Your task to perform on an android device: change timer sound Image 0: 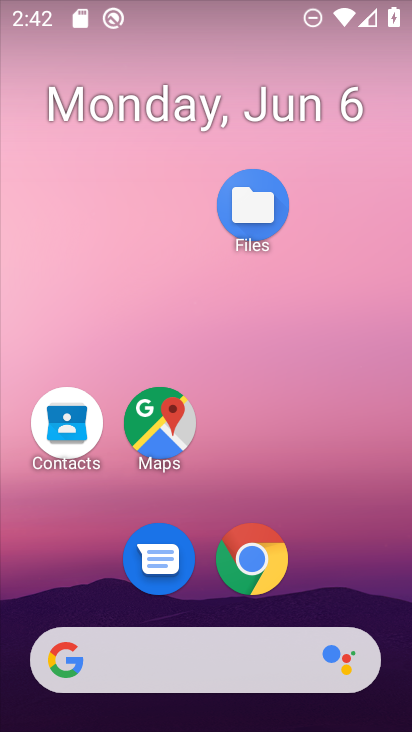
Step 0: drag from (190, 663) to (222, 1)
Your task to perform on an android device: change timer sound Image 1: 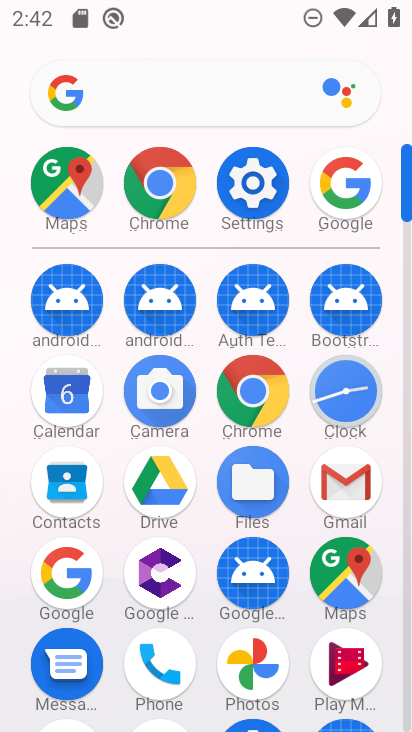
Step 1: click (369, 395)
Your task to perform on an android device: change timer sound Image 2: 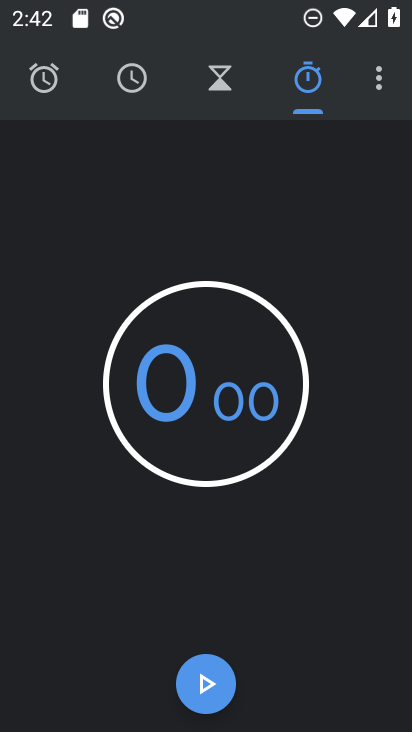
Step 2: click (392, 91)
Your task to perform on an android device: change timer sound Image 3: 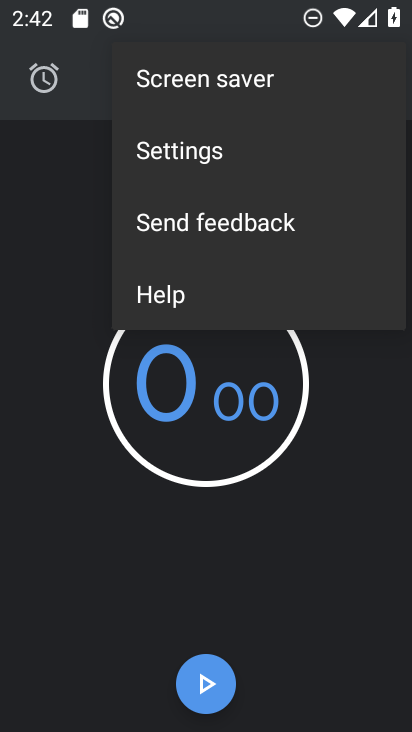
Step 3: click (212, 150)
Your task to perform on an android device: change timer sound Image 4: 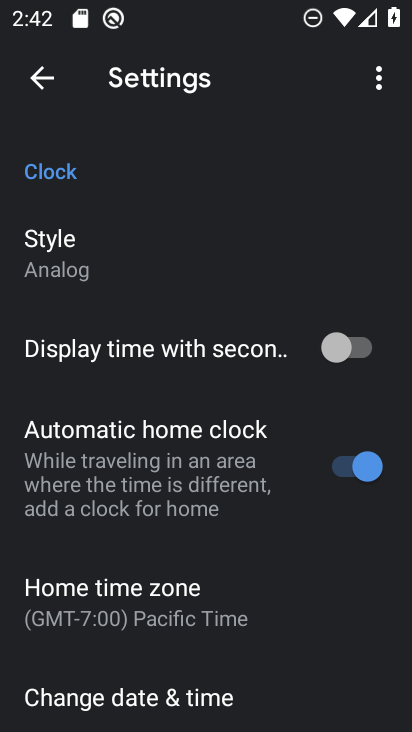
Step 4: drag from (232, 576) to (279, 281)
Your task to perform on an android device: change timer sound Image 5: 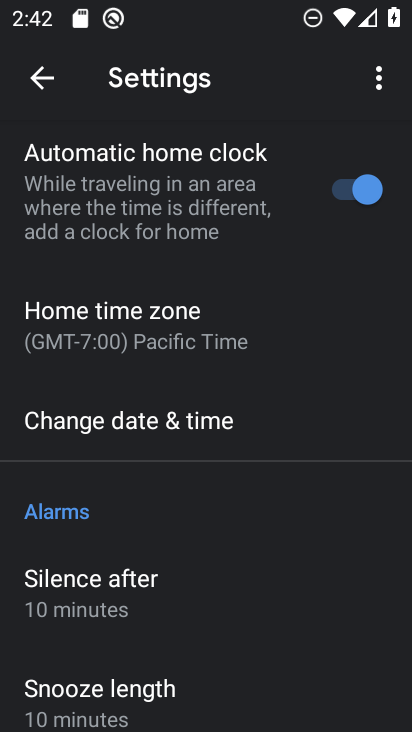
Step 5: drag from (193, 626) to (237, 279)
Your task to perform on an android device: change timer sound Image 6: 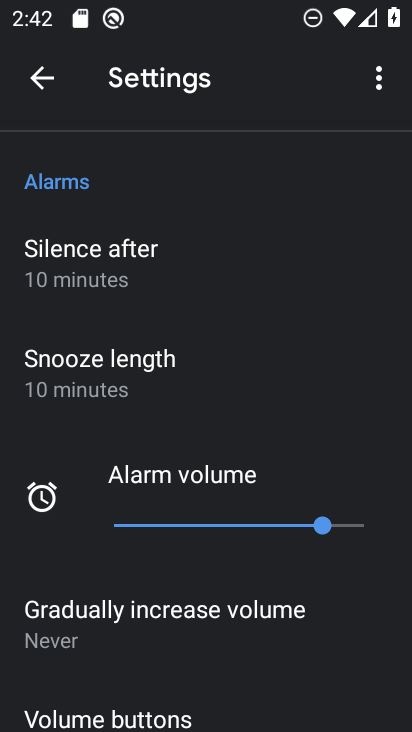
Step 6: drag from (216, 490) to (245, 225)
Your task to perform on an android device: change timer sound Image 7: 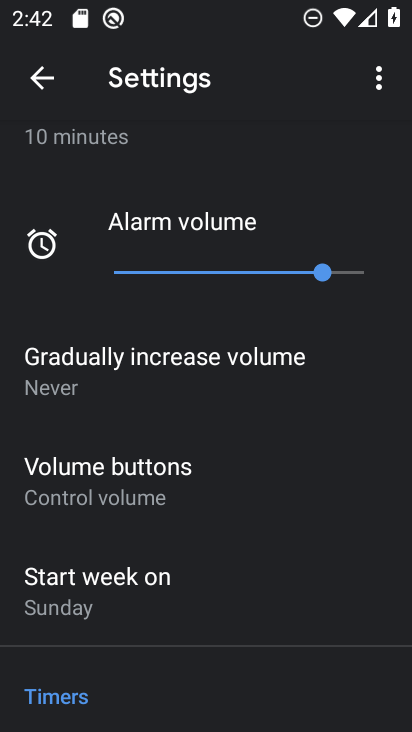
Step 7: drag from (190, 579) to (248, 245)
Your task to perform on an android device: change timer sound Image 8: 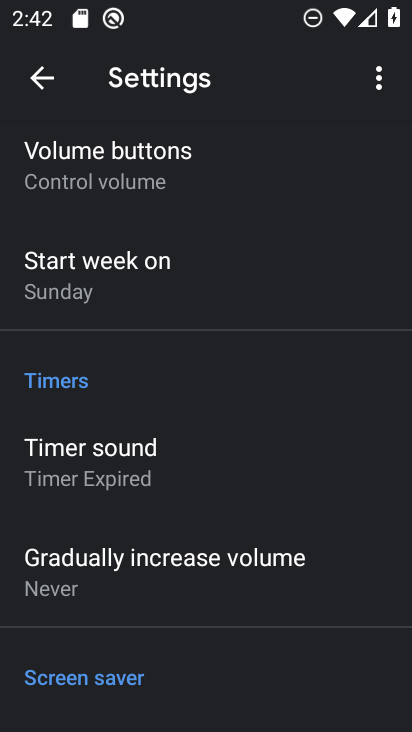
Step 8: drag from (197, 585) to (239, 259)
Your task to perform on an android device: change timer sound Image 9: 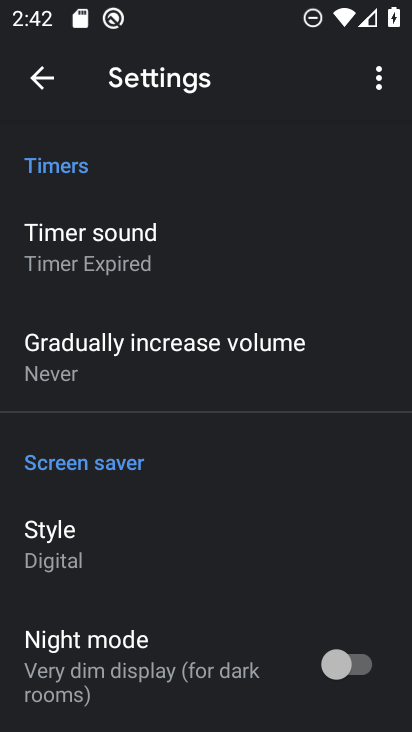
Step 9: drag from (193, 562) to (226, 264)
Your task to perform on an android device: change timer sound Image 10: 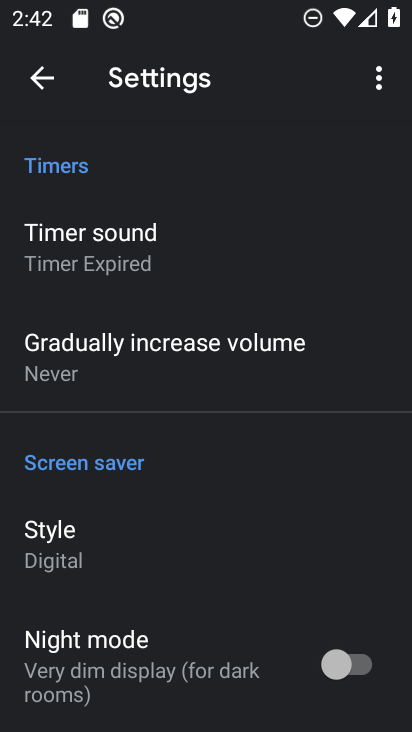
Step 10: drag from (180, 530) to (203, 336)
Your task to perform on an android device: change timer sound Image 11: 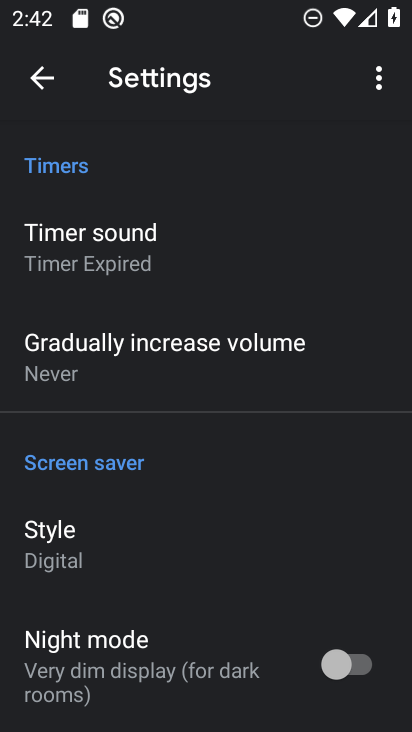
Step 11: click (165, 258)
Your task to perform on an android device: change timer sound Image 12: 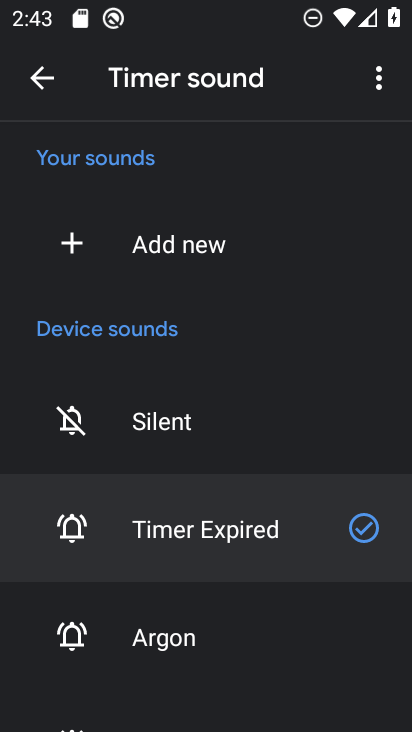
Step 12: click (198, 626)
Your task to perform on an android device: change timer sound Image 13: 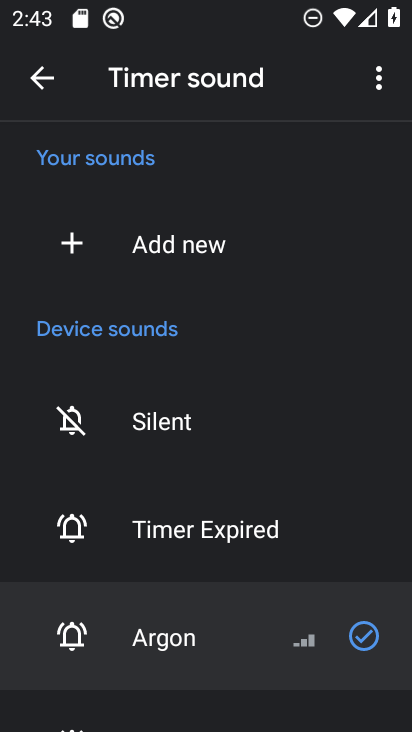
Step 13: task complete